Your task to perform on an android device: What is the news today? Image 0: 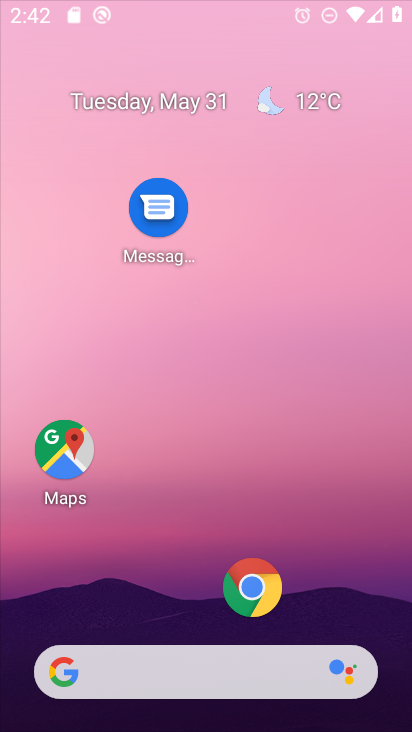
Step 0: click (191, 29)
Your task to perform on an android device: What is the news today? Image 1: 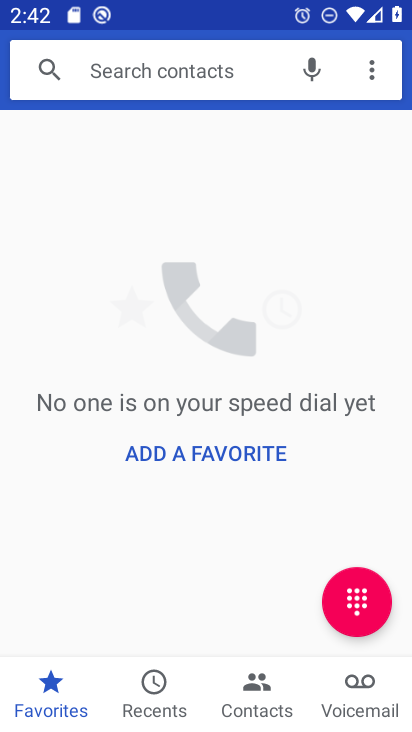
Step 1: press home button
Your task to perform on an android device: What is the news today? Image 2: 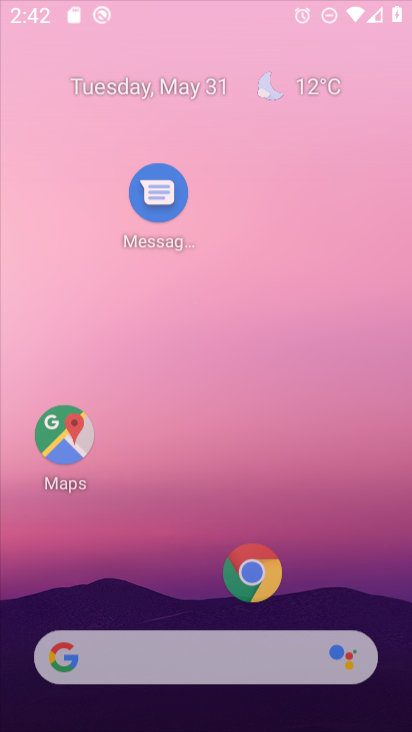
Step 2: drag from (198, 571) to (225, 5)
Your task to perform on an android device: What is the news today? Image 3: 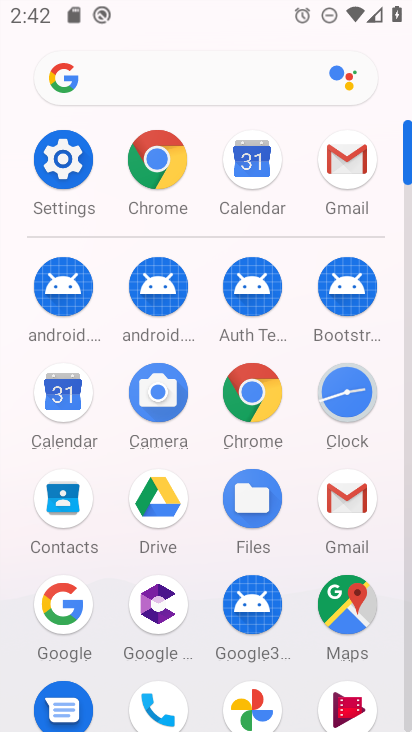
Step 3: click (181, 83)
Your task to perform on an android device: What is the news today? Image 4: 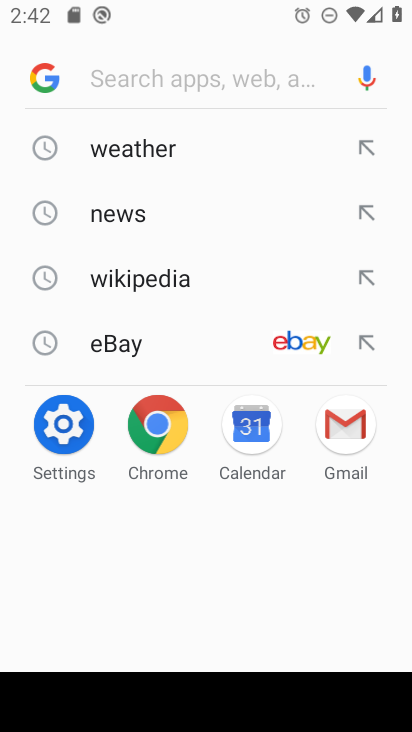
Step 4: click (167, 107)
Your task to perform on an android device: What is the news today? Image 5: 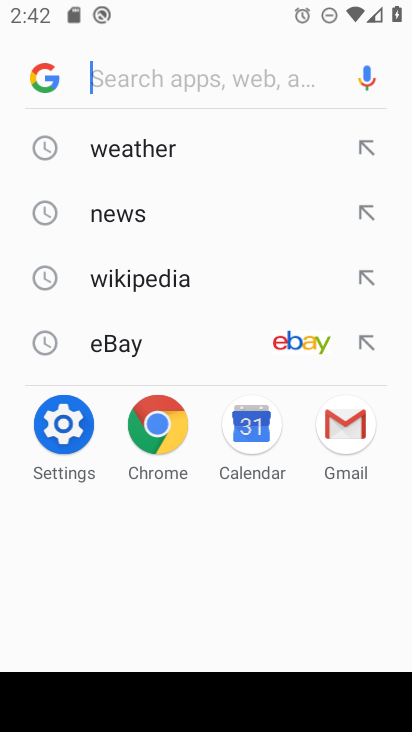
Step 5: click (151, 95)
Your task to perform on an android device: What is the news today? Image 6: 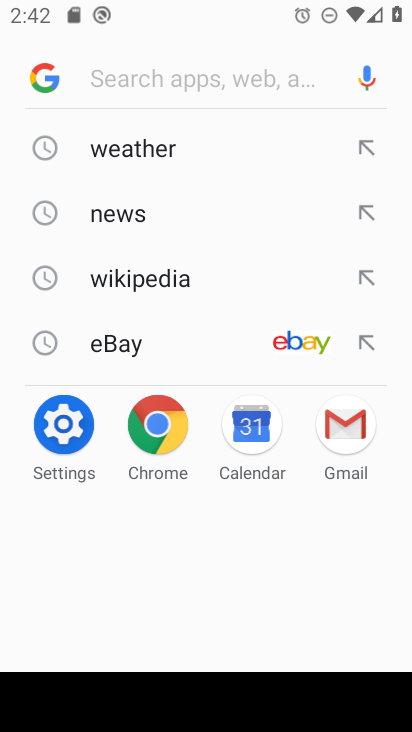
Step 6: click (150, 94)
Your task to perform on an android device: What is the news today? Image 7: 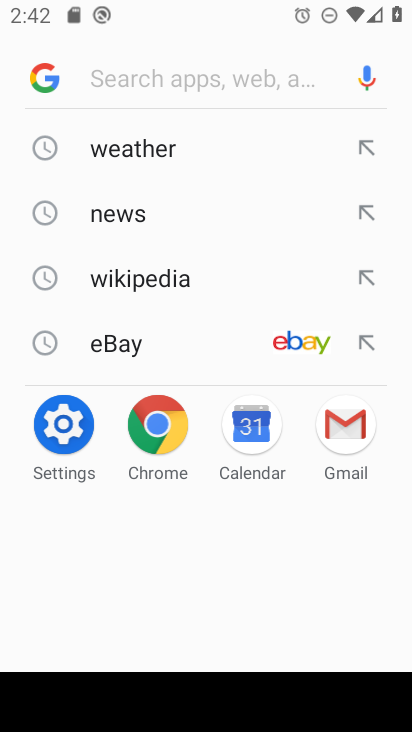
Step 7: type "news today?"
Your task to perform on an android device: What is the news today? Image 8: 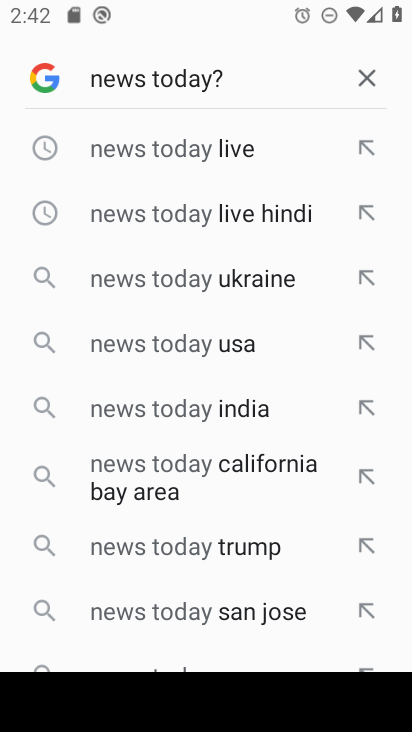
Step 8: type ""
Your task to perform on an android device: What is the news today? Image 9: 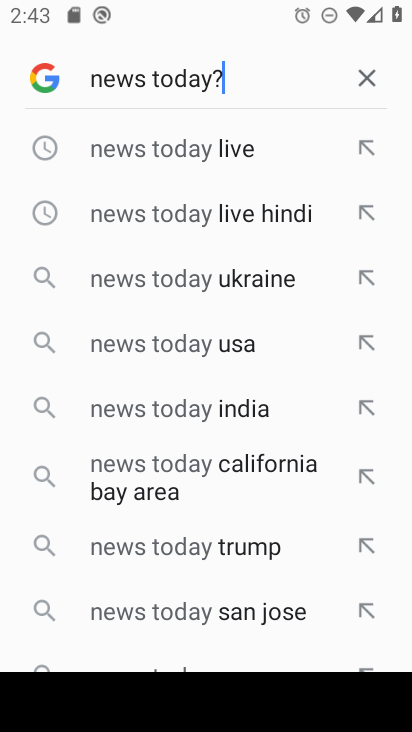
Step 9: click (143, 149)
Your task to perform on an android device: What is the news today? Image 10: 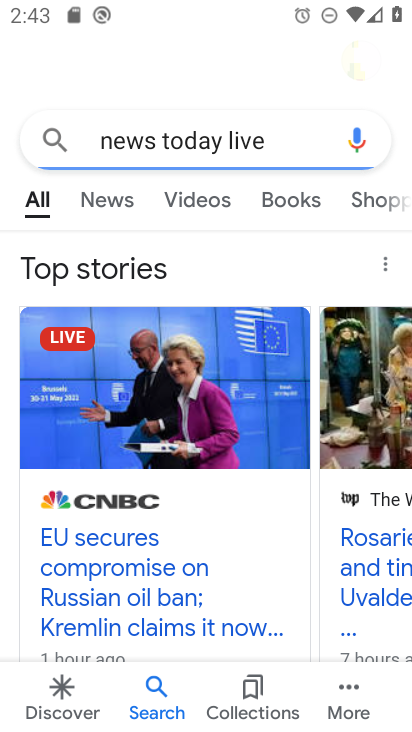
Step 10: task complete